Your task to perform on an android device: turn on translation in the chrome app Image 0: 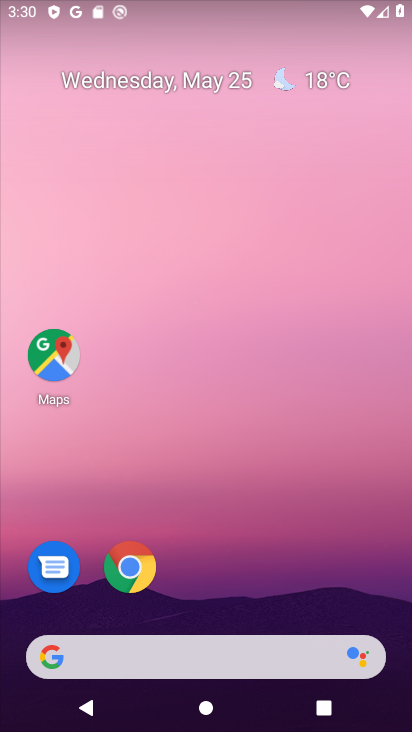
Step 0: drag from (388, 619) to (398, 232)
Your task to perform on an android device: turn on translation in the chrome app Image 1: 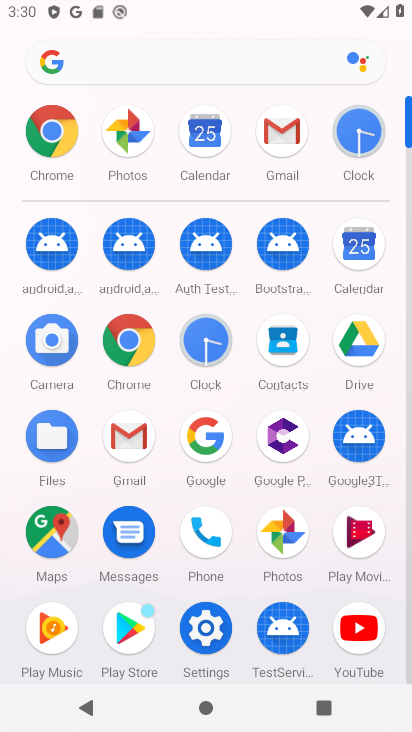
Step 1: click (139, 364)
Your task to perform on an android device: turn on translation in the chrome app Image 2: 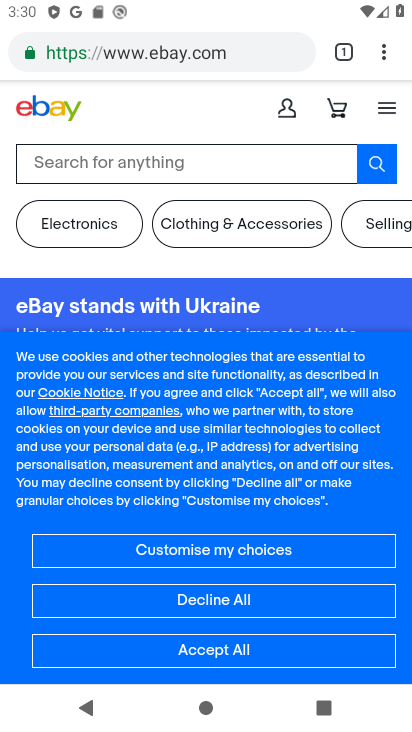
Step 2: click (379, 55)
Your task to perform on an android device: turn on translation in the chrome app Image 3: 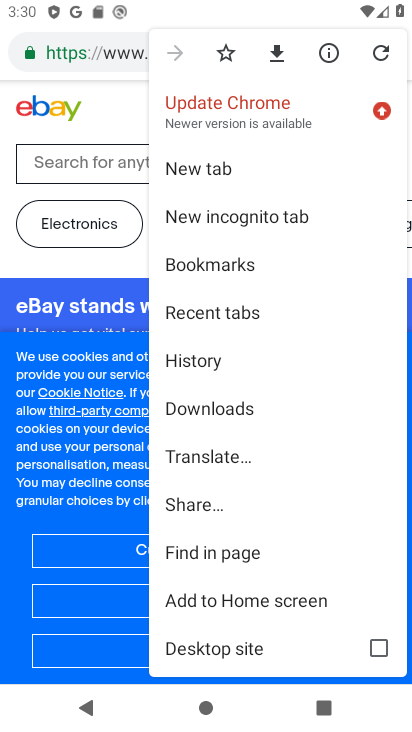
Step 3: drag from (362, 444) to (366, 332)
Your task to perform on an android device: turn on translation in the chrome app Image 4: 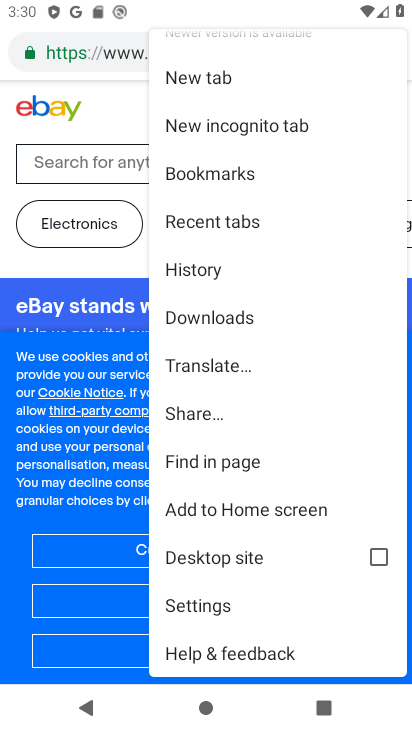
Step 4: click (238, 615)
Your task to perform on an android device: turn on translation in the chrome app Image 5: 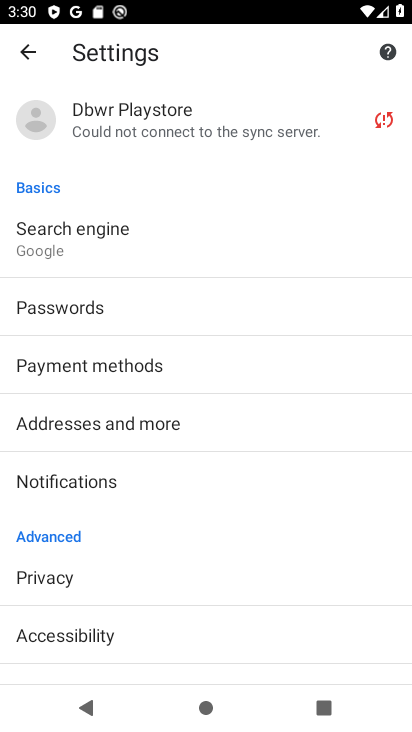
Step 5: drag from (274, 607) to (300, 497)
Your task to perform on an android device: turn on translation in the chrome app Image 6: 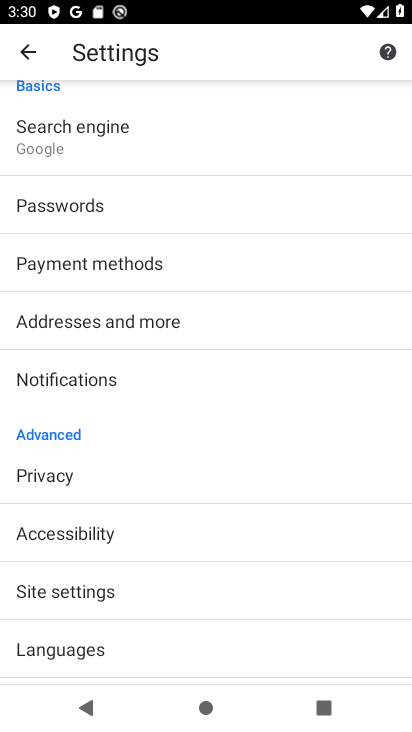
Step 6: drag from (311, 599) to (318, 495)
Your task to perform on an android device: turn on translation in the chrome app Image 7: 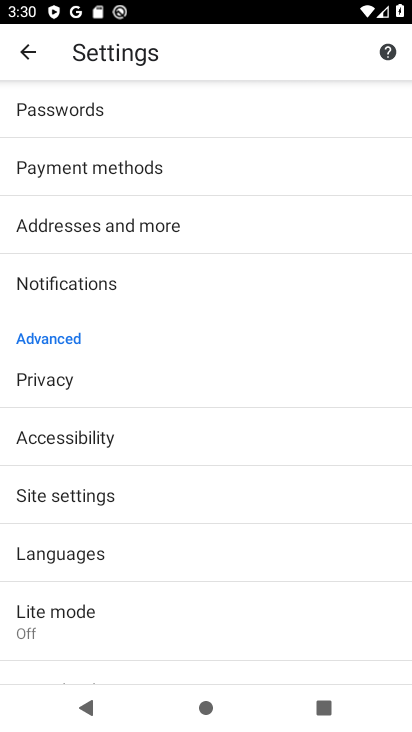
Step 7: drag from (328, 582) to (349, 431)
Your task to perform on an android device: turn on translation in the chrome app Image 8: 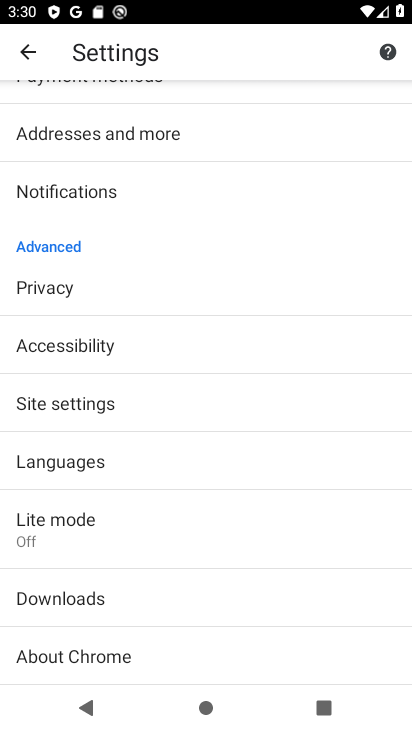
Step 8: drag from (359, 587) to (364, 444)
Your task to perform on an android device: turn on translation in the chrome app Image 9: 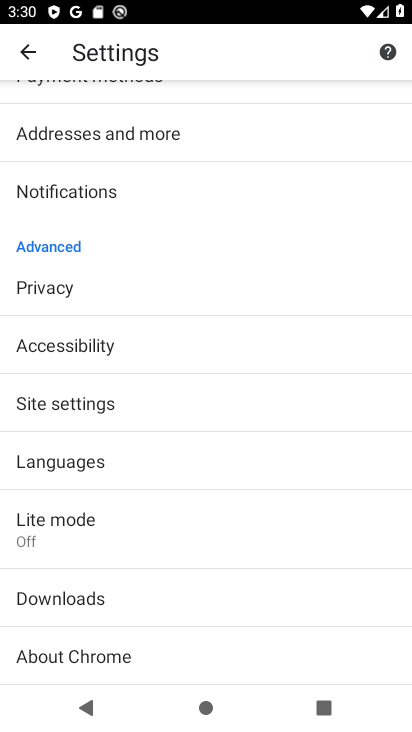
Step 9: click (170, 463)
Your task to perform on an android device: turn on translation in the chrome app Image 10: 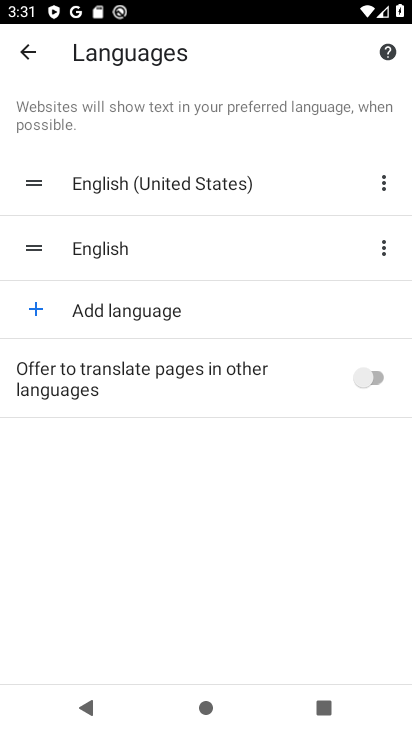
Step 10: click (354, 383)
Your task to perform on an android device: turn on translation in the chrome app Image 11: 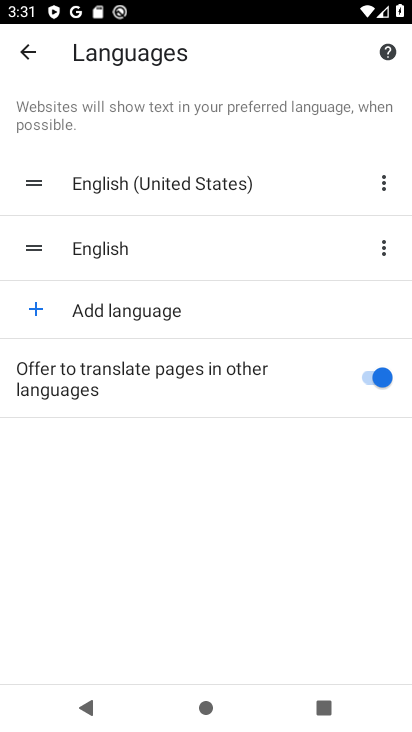
Step 11: task complete